Your task to perform on an android device: check google app version Image 0: 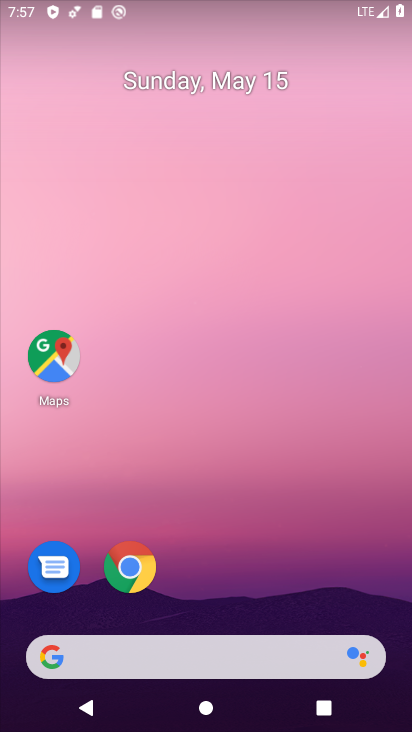
Step 0: drag from (221, 566) to (272, 110)
Your task to perform on an android device: check google app version Image 1: 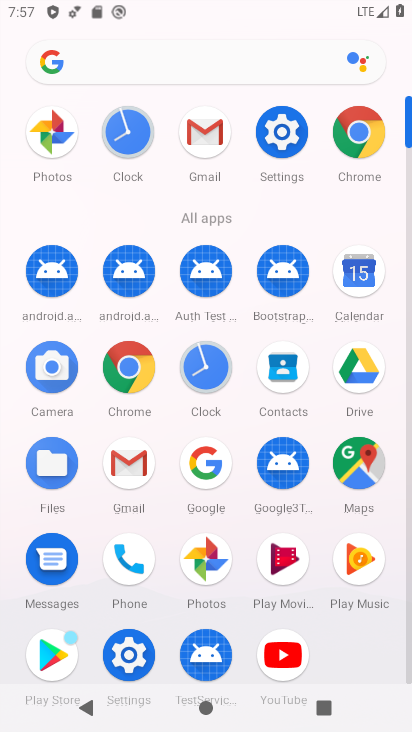
Step 1: click (202, 476)
Your task to perform on an android device: check google app version Image 2: 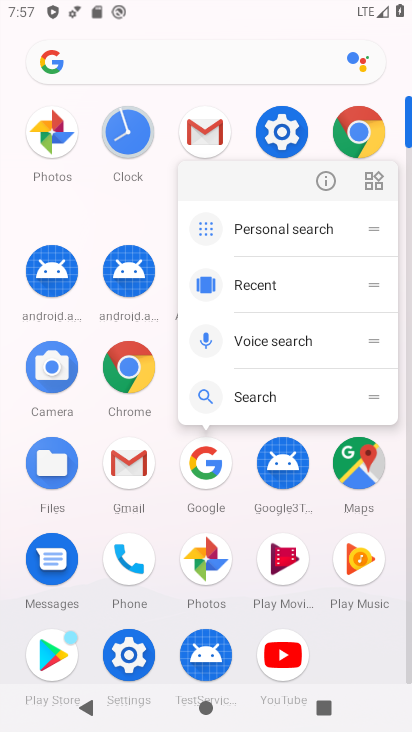
Step 2: click (328, 174)
Your task to perform on an android device: check google app version Image 3: 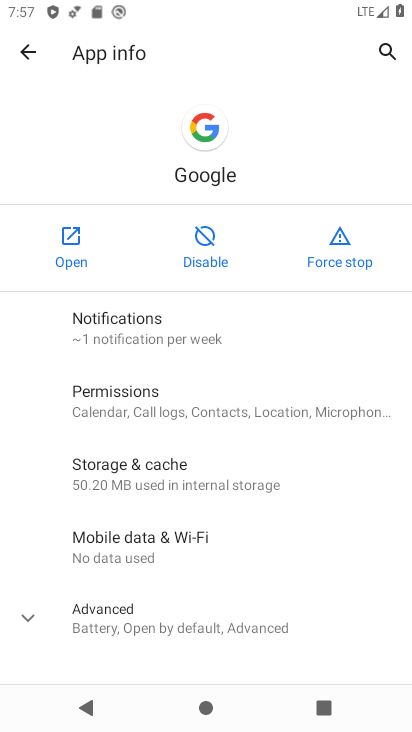
Step 3: drag from (148, 618) to (219, 44)
Your task to perform on an android device: check google app version Image 4: 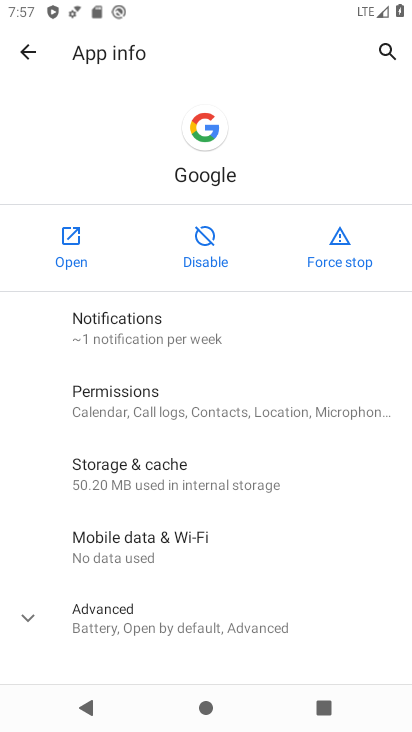
Step 4: click (144, 640)
Your task to perform on an android device: check google app version Image 5: 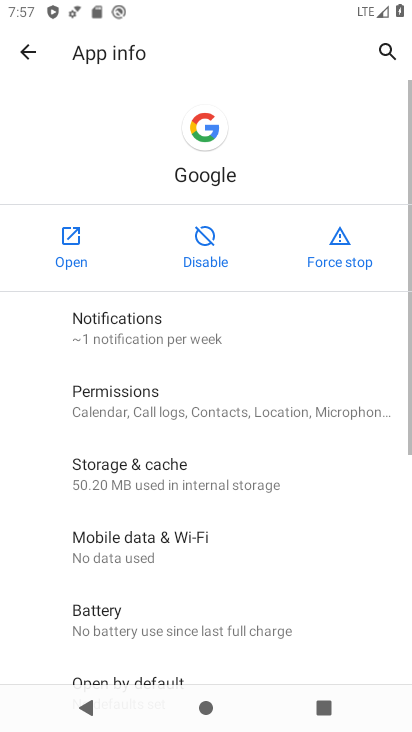
Step 5: drag from (132, 643) to (250, 127)
Your task to perform on an android device: check google app version Image 6: 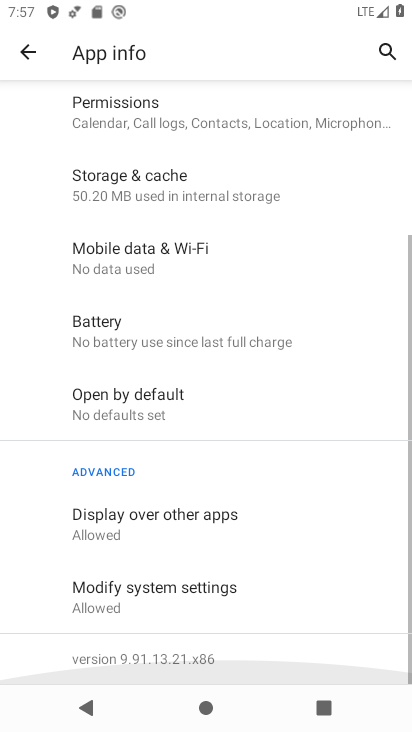
Step 6: drag from (208, 585) to (284, 55)
Your task to perform on an android device: check google app version Image 7: 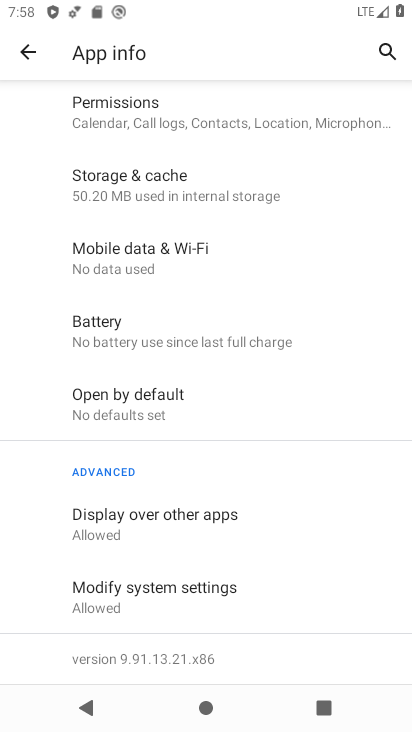
Step 7: click (127, 657)
Your task to perform on an android device: check google app version Image 8: 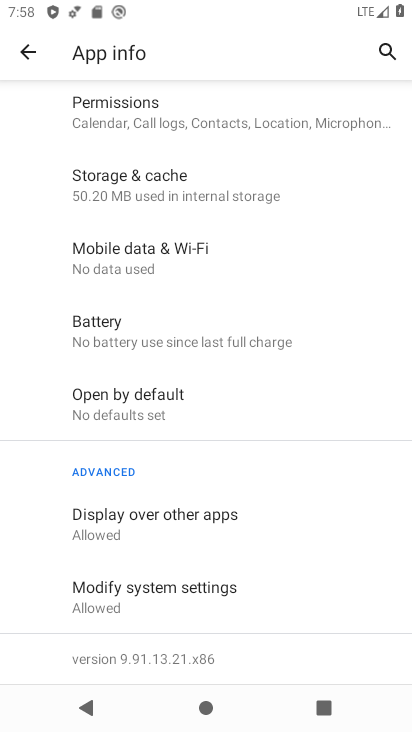
Step 8: task complete